Your task to perform on an android device: Open display settings Image 0: 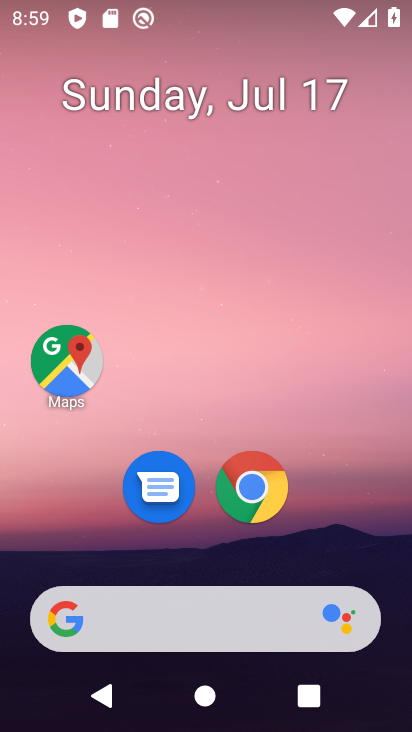
Step 0: press home button
Your task to perform on an android device: Open display settings Image 1: 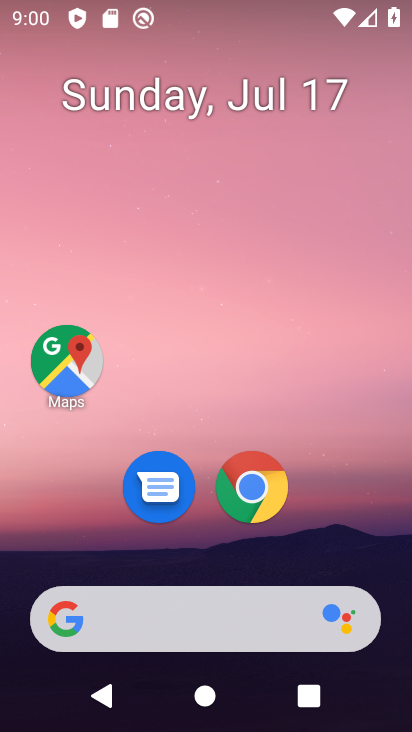
Step 1: drag from (359, 523) to (372, 142)
Your task to perform on an android device: Open display settings Image 2: 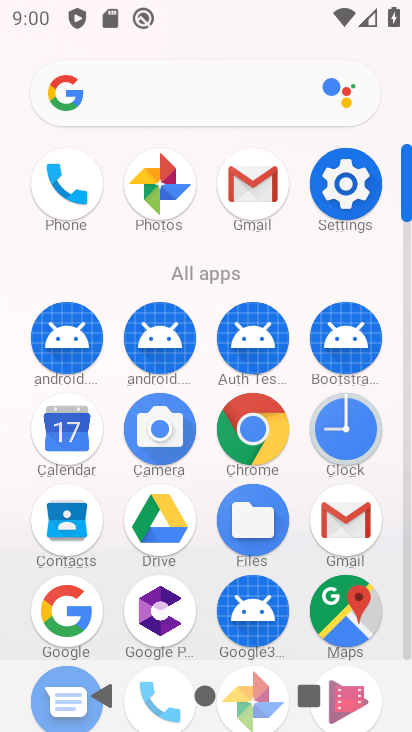
Step 2: click (357, 182)
Your task to perform on an android device: Open display settings Image 3: 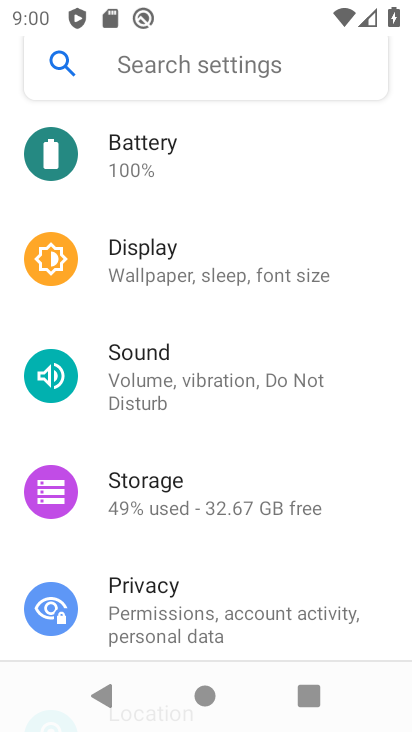
Step 3: click (174, 257)
Your task to perform on an android device: Open display settings Image 4: 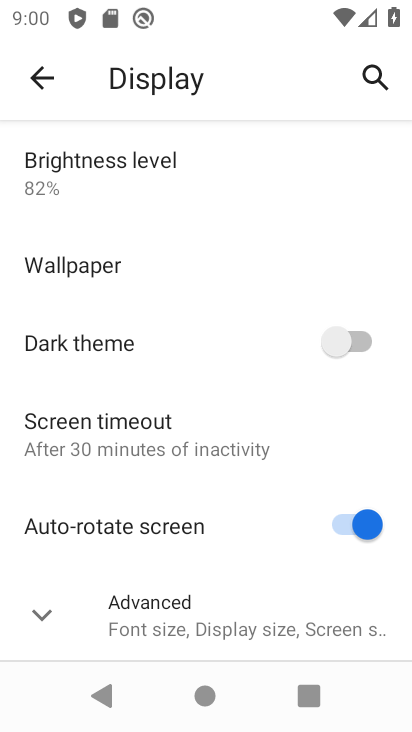
Step 4: task complete